Your task to perform on an android device: Show me popular videos on Youtube Image 0: 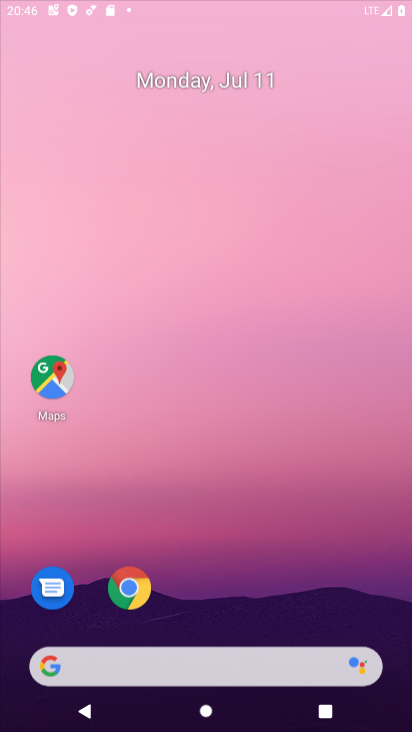
Step 0: press home button
Your task to perform on an android device: Show me popular videos on Youtube Image 1: 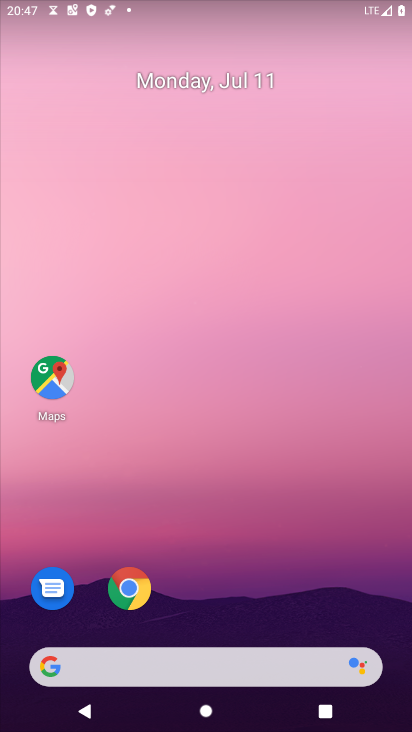
Step 1: drag from (252, 628) to (284, 160)
Your task to perform on an android device: Show me popular videos on Youtube Image 2: 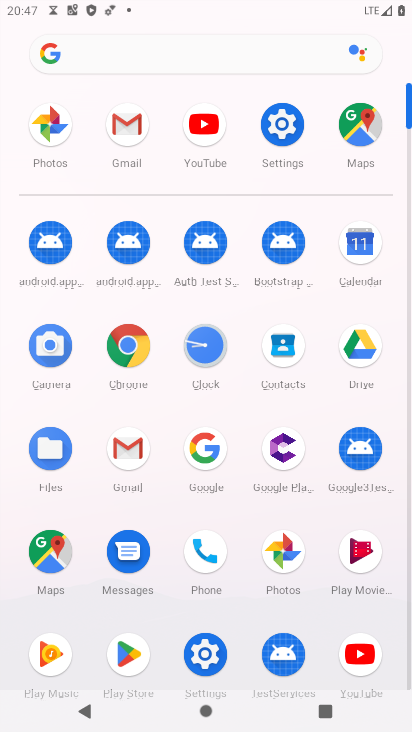
Step 2: click (358, 661)
Your task to perform on an android device: Show me popular videos on Youtube Image 3: 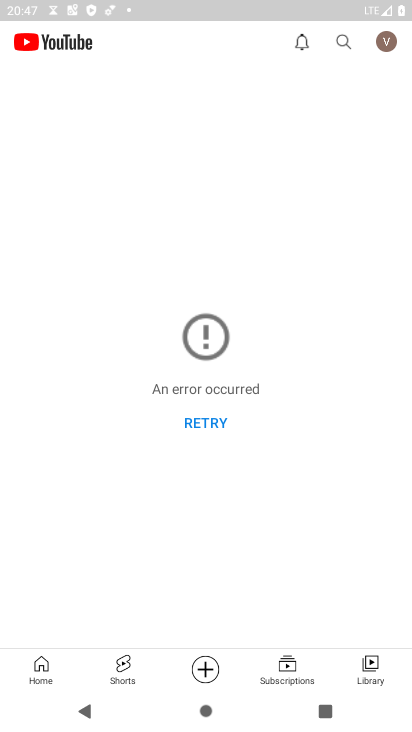
Step 3: click (209, 425)
Your task to perform on an android device: Show me popular videos on Youtube Image 4: 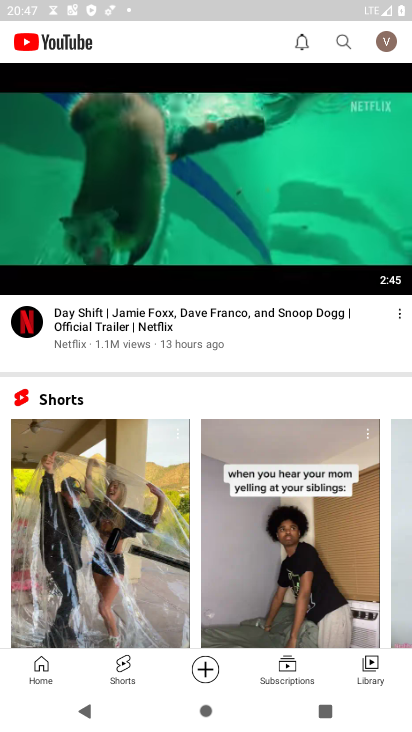
Step 4: click (34, 668)
Your task to perform on an android device: Show me popular videos on Youtube Image 5: 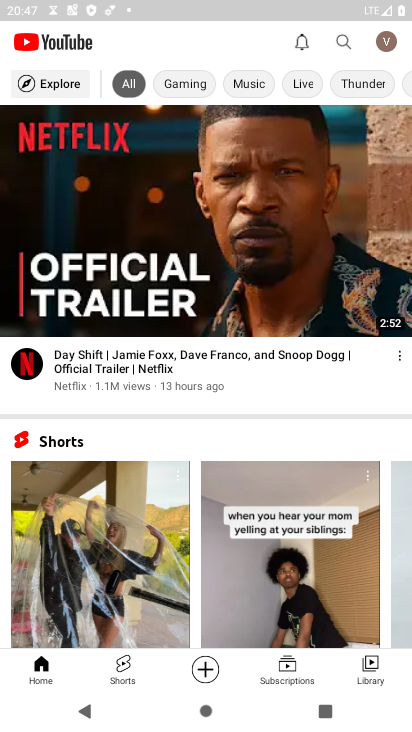
Step 5: click (56, 89)
Your task to perform on an android device: Show me popular videos on Youtube Image 6: 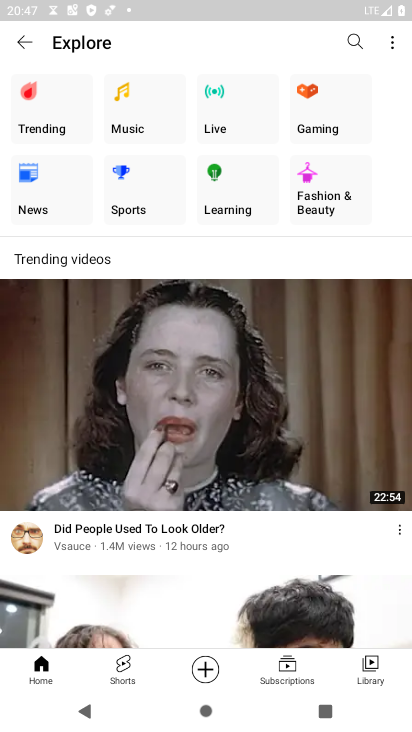
Step 6: click (24, 107)
Your task to perform on an android device: Show me popular videos on Youtube Image 7: 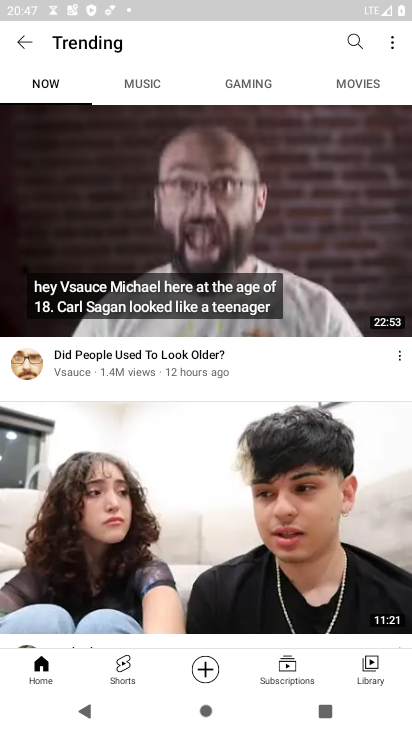
Step 7: task complete